Your task to perform on an android device: Open eBay Image 0: 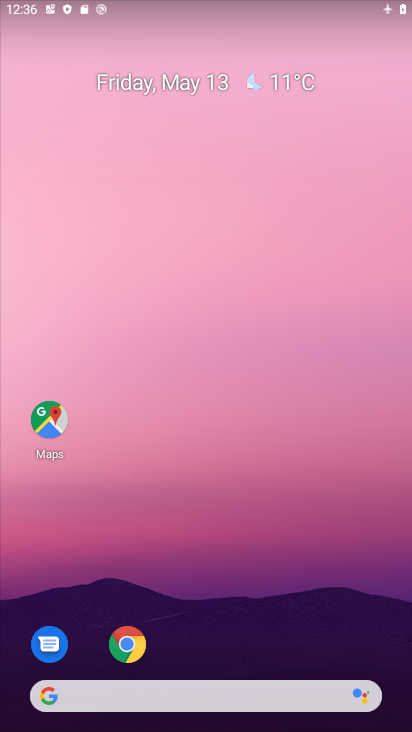
Step 0: click (127, 644)
Your task to perform on an android device: Open eBay Image 1: 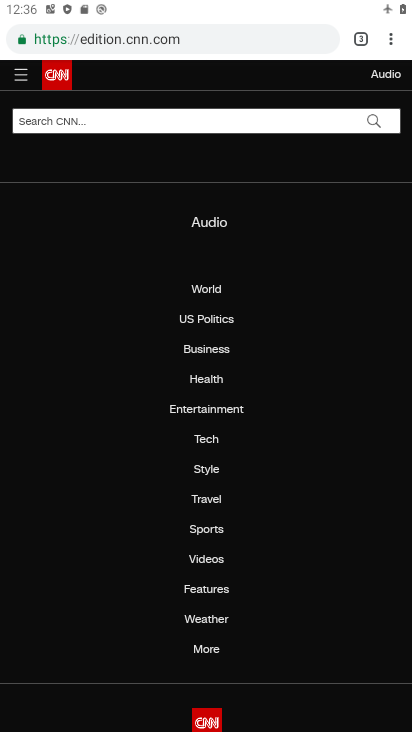
Step 1: click (392, 43)
Your task to perform on an android device: Open eBay Image 2: 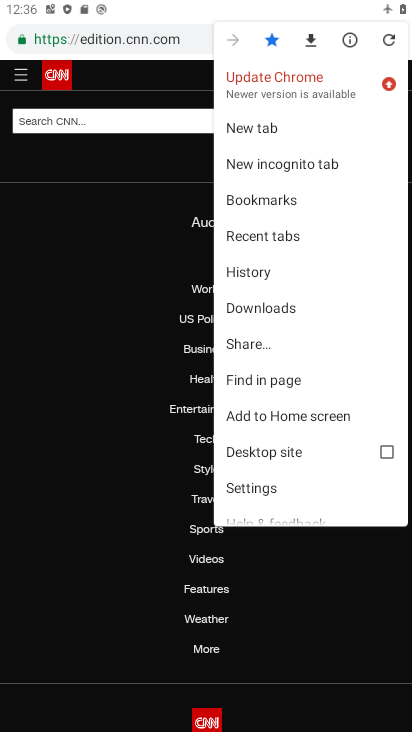
Step 2: click (259, 128)
Your task to perform on an android device: Open eBay Image 3: 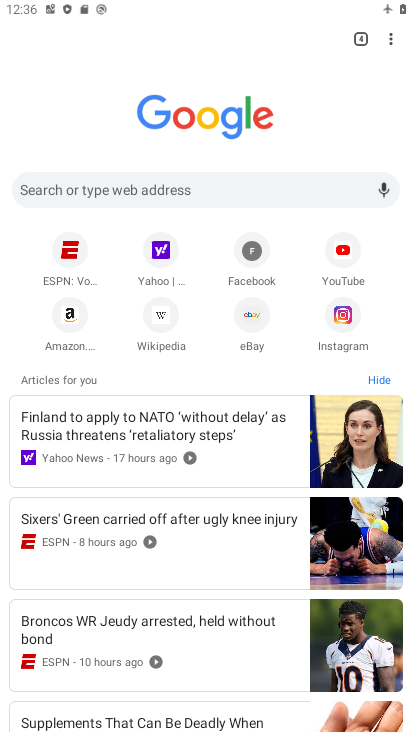
Step 3: click (170, 193)
Your task to perform on an android device: Open eBay Image 4: 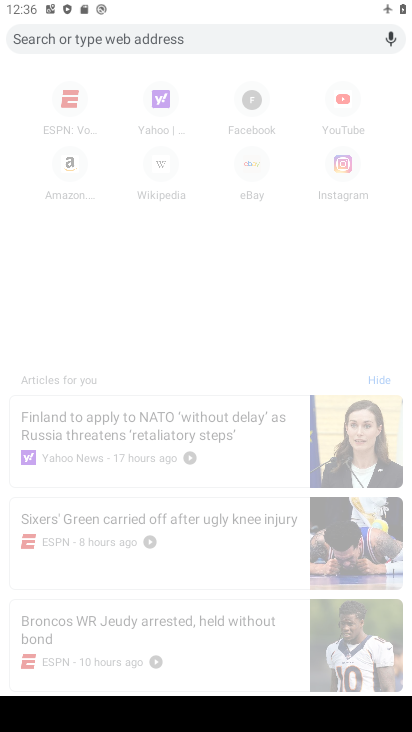
Step 4: type "eBay"
Your task to perform on an android device: Open eBay Image 5: 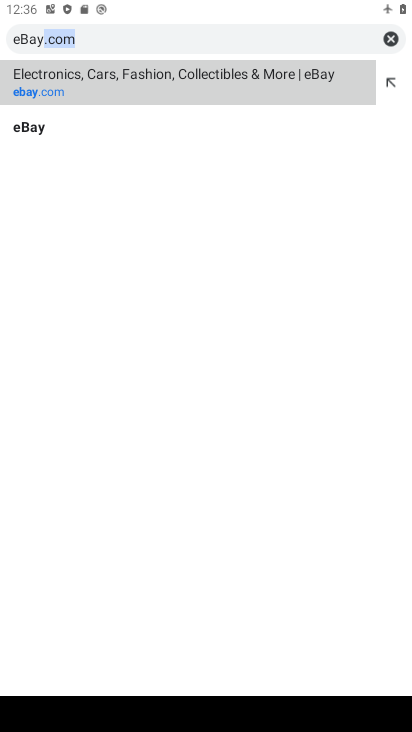
Step 5: click (70, 77)
Your task to perform on an android device: Open eBay Image 6: 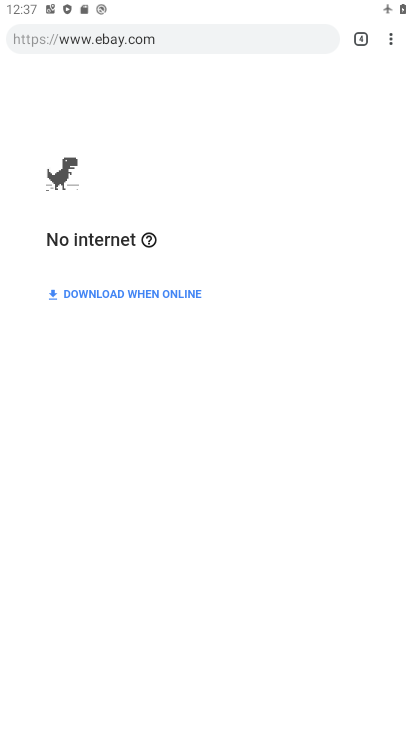
Step 6: task complete